Your task to perform on an android device: turn off priority inbox in the gmail app Image 0: 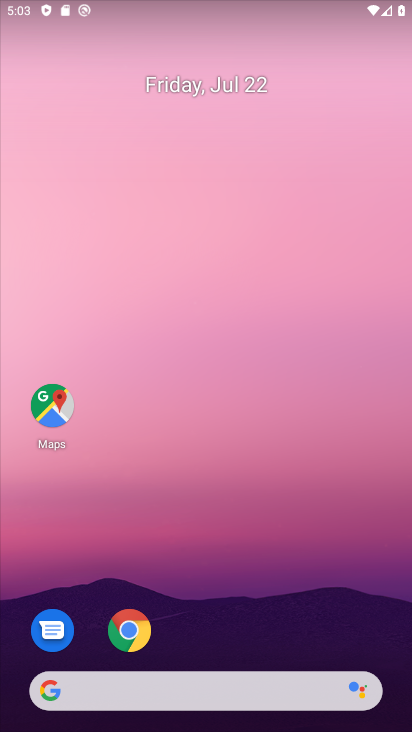
Step 0: drag from (173, 641) to (200, 146)
Your task to perform on an android device: turn off priority inbox in the gmail app Image 1: 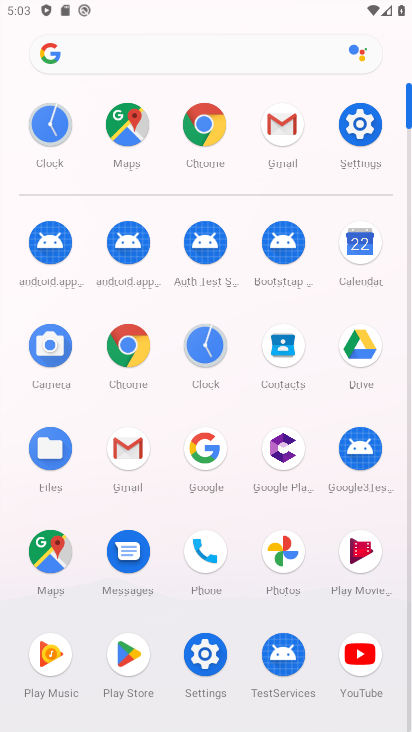
Step 1: click (129, 451)
Your task to perform on an android device: turn off priority inbox in the gmail app Image 2: 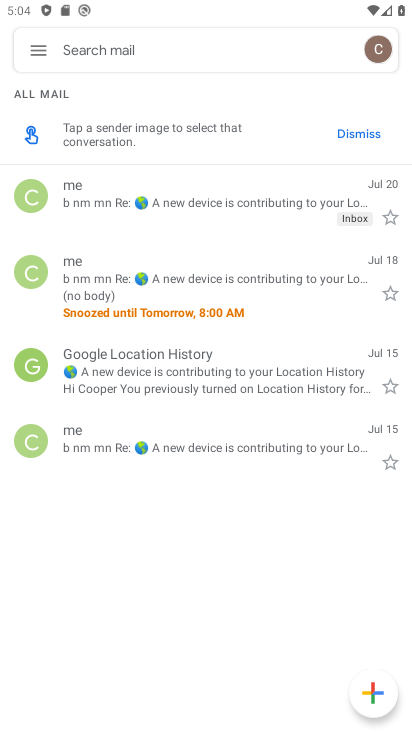
Step 2: click (34, 59)
Your task to perform on an android device: turn off priority inbox in the gmail app Image 3: 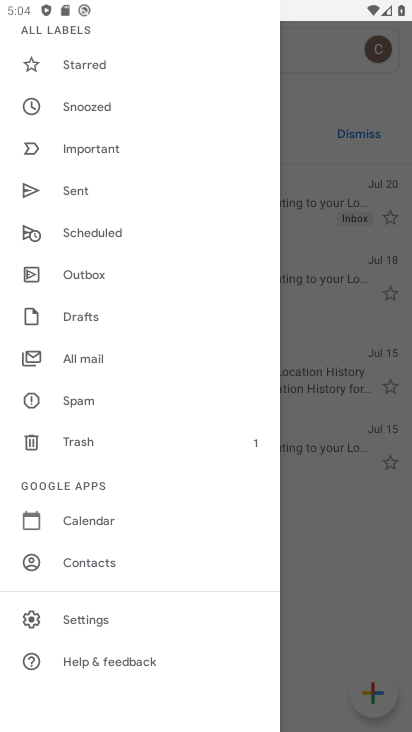
Step 3: click (80, 617)
Your task to perform on an android device: turn off priority inbox in the gmail app Image 4: 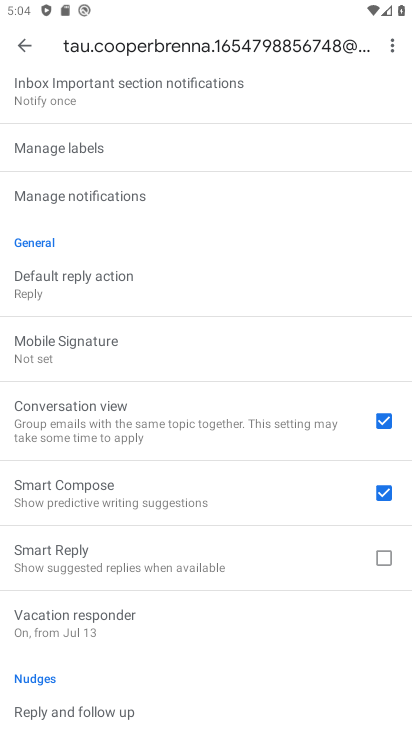
Step 4: drag from (124, 327) to (124, 635)
Your task to perform on an android device: turn off priority inbox in the gmail app Image 5: 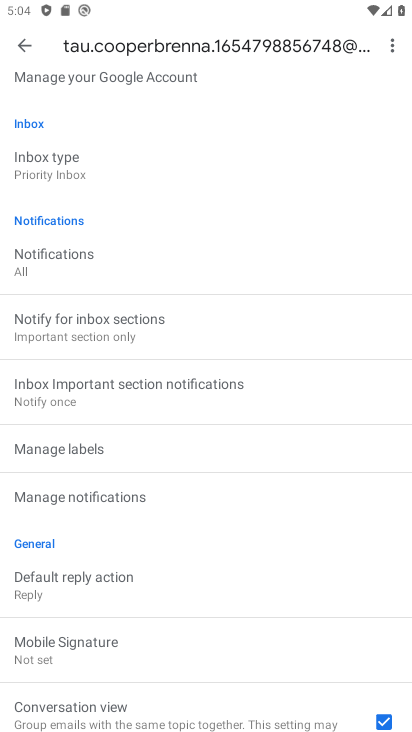
Step 5: click (54, 173)
Your task to perform on an android device: turn off priority inbox in the gmail app Image 6: 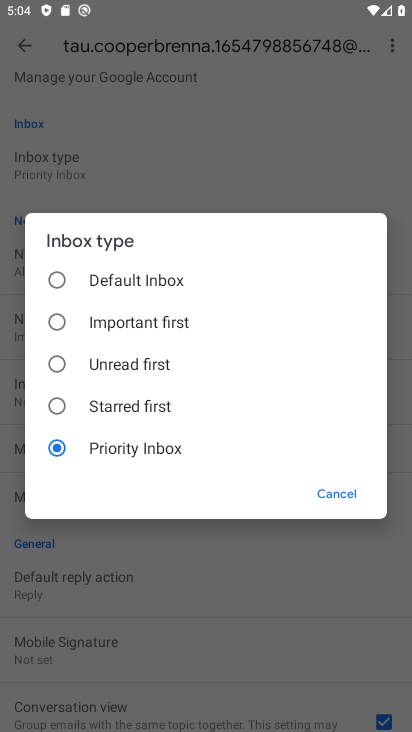
Step 6: task complete